Your task to perform on an android device: Show me recent news Image 0: 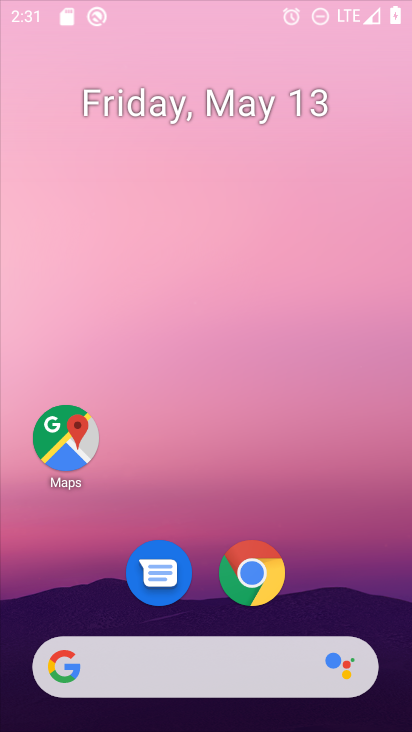
Step 0: click (75, 432)
Your task to perform on an android device: Show me recent news Image 1: 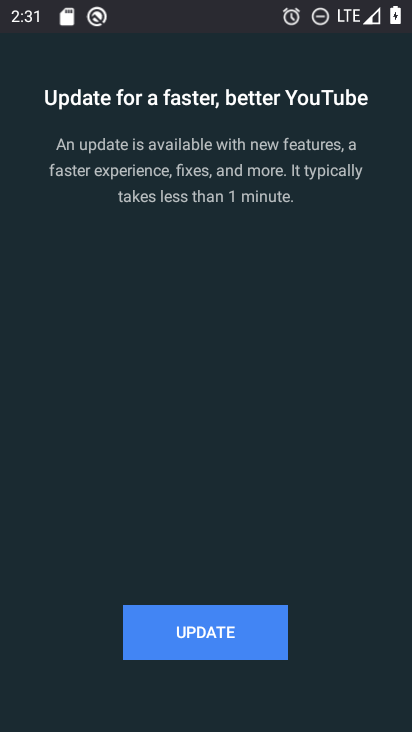
Step 1: press home button
Your task to perform on an android device: Show me recent news Image 2: 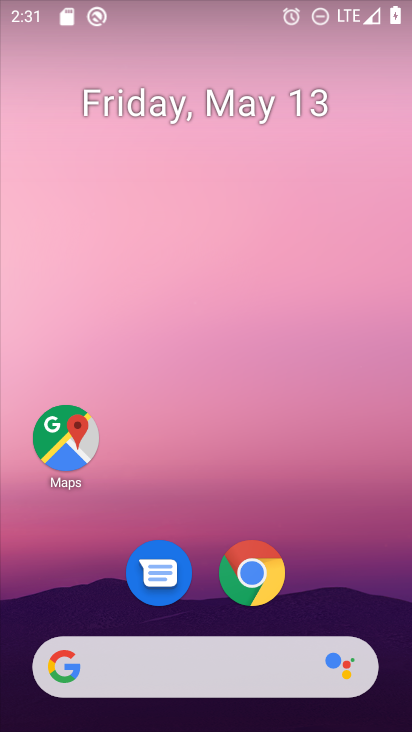
Step 2: drag from (252, 719) to (246, 70)
Your task to perform on an android device: Show me recent news Image 3: 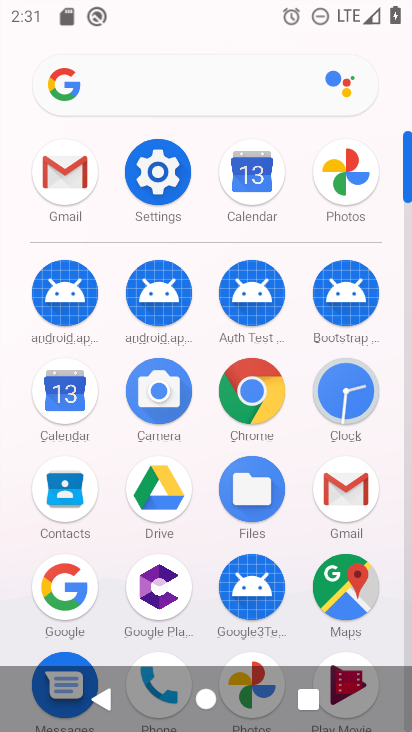
Step 3: click (222, 97)
Your task to perform on an android device: Show me recent news Image 4: 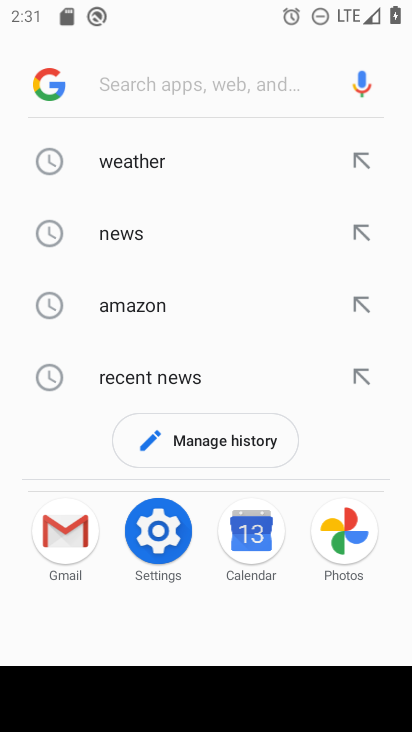
Step 4: click (100, 380)
Your task to perform on an android device: Show me recent news Image 5: 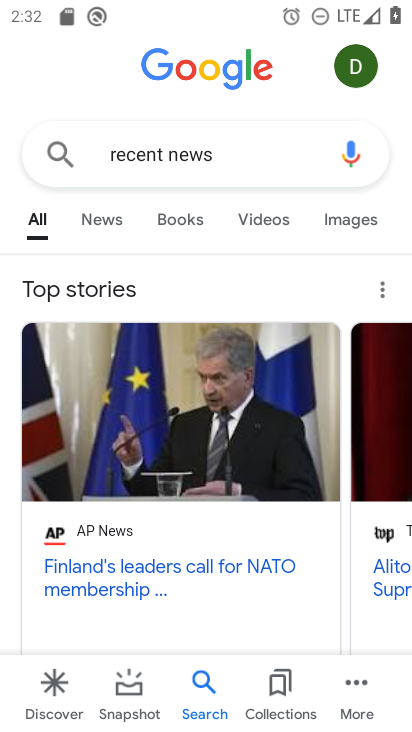
Step 5: task complete